Your task to perform on an android device: Open Chrome and go to settings Image 0: 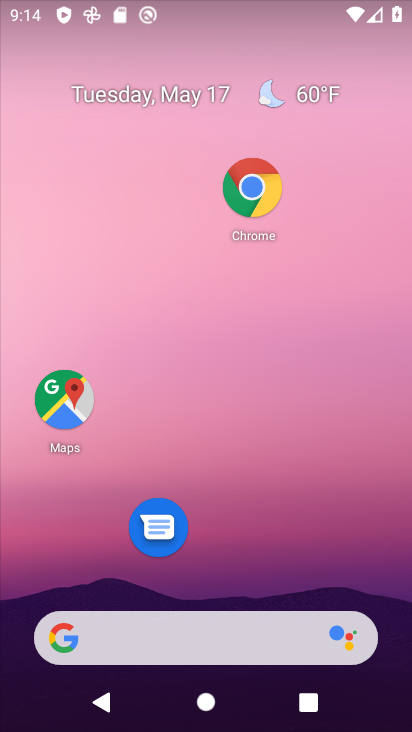
Step 0: click (278, 210)
Your task to perform on an android device: Open Chrome and go to settings Image 1: 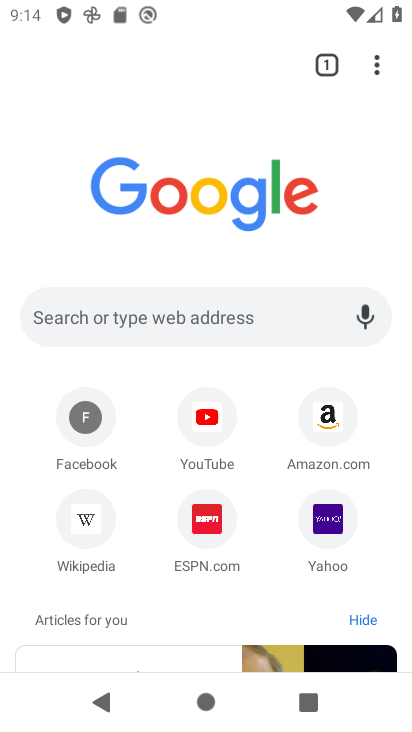
Step 1: click (369, 79)
Your task to perform on an android device: Open Chrome and go to settings Image 2: 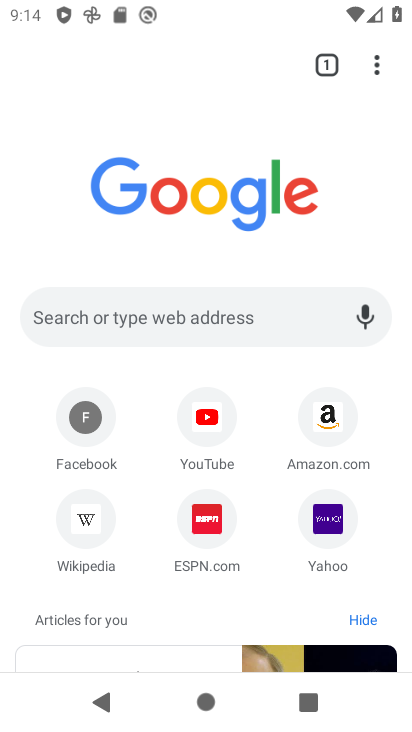
Step 2: click (393, 56)
Your task to perform on an android device: Open Chrome and go to settings Image 3: 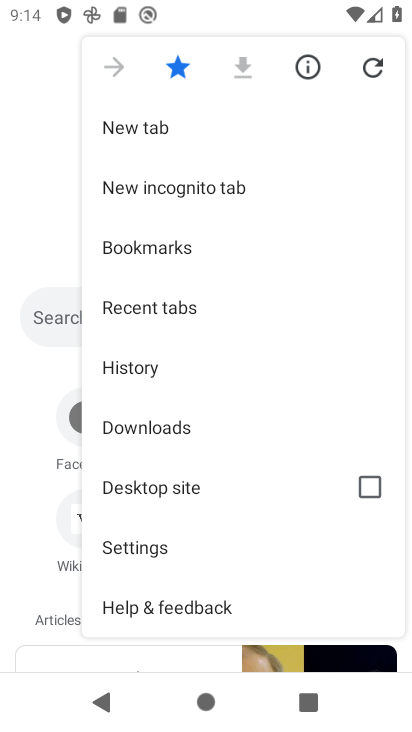
Step 3: click (195, 524)
Your task to perform on an android device: Open Chrome and go to settings Image 4: 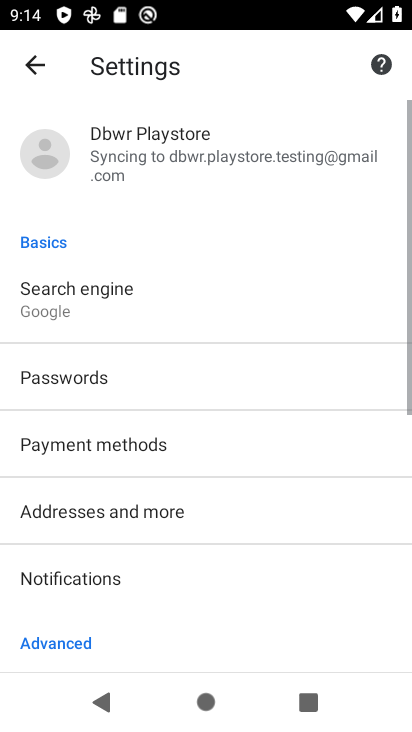
Step 4: task complete